Your task to perform on an android device: Search for vegetarian restaurants on Maps Image 0: 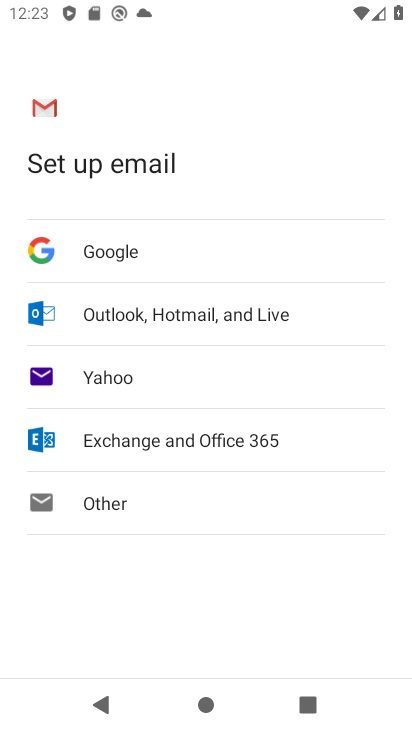
Step 0: press home button
Your task to perform on an android device: Search for vegetarian restaurants on Maps Image 1: 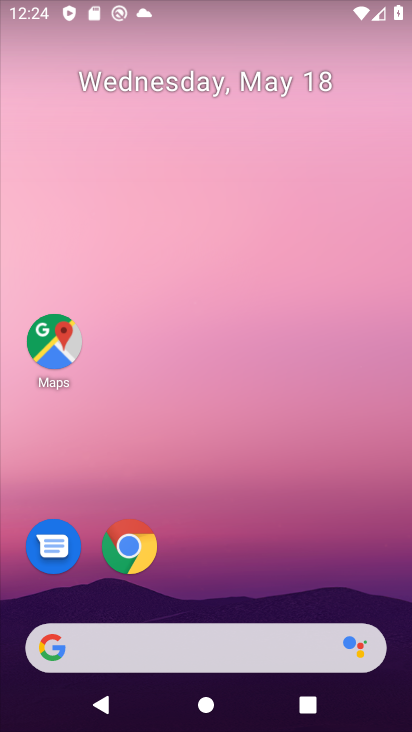
Step 1: drag from (245, 553) to (236, 182)
Your task to perform on an android device: Search for vegetarian restaurants on Maps Image 2: 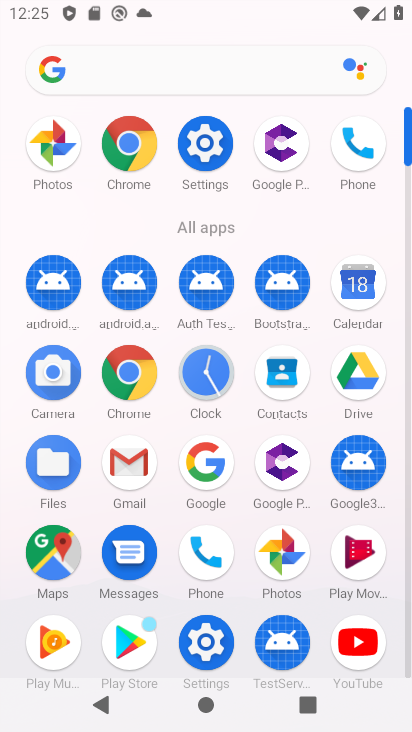
Step 2: click (45, 555)
Your task to perform on an android device: Search for vegetarian restaurants on Maps Image 3: 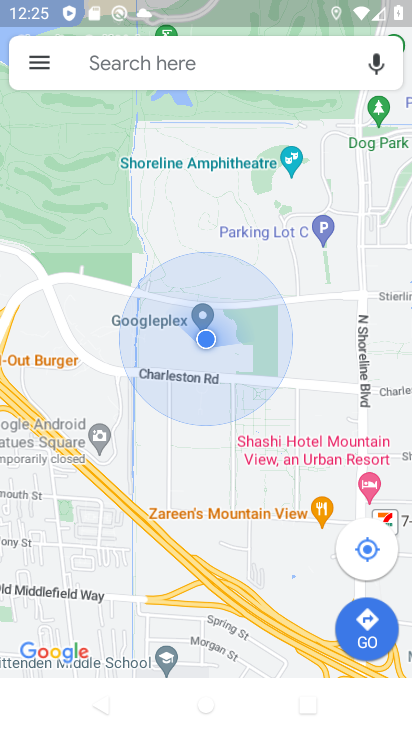
Step 3: click (179, 66)
Your task to perform on an android device: Search for vegetarian restaurants on Maps Image 4: 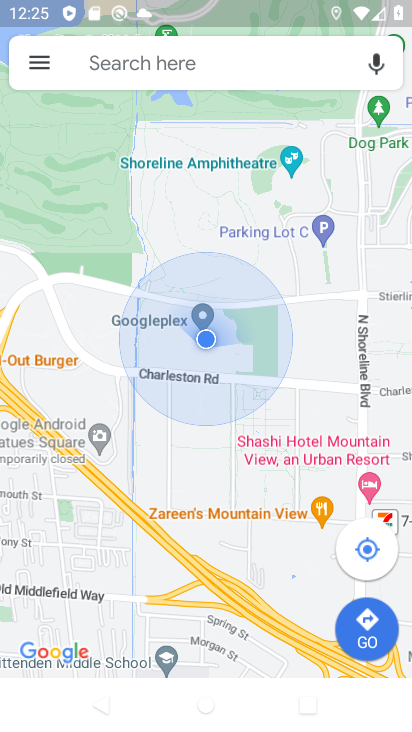
Step 4: click (179, 66)
Your task to perform on an android device: Search for vegetarian restaurants on Maps Image 5: 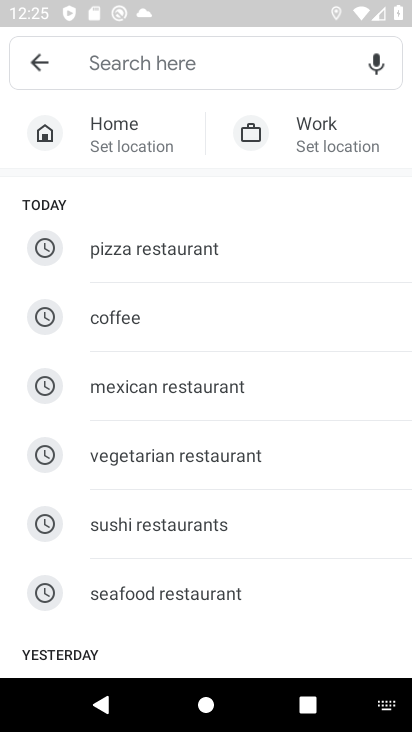
Step 5: type " vegetarian restaurants"
Your task to perform on an android device: Search for vegetarian restaurants on Maps Image 6: 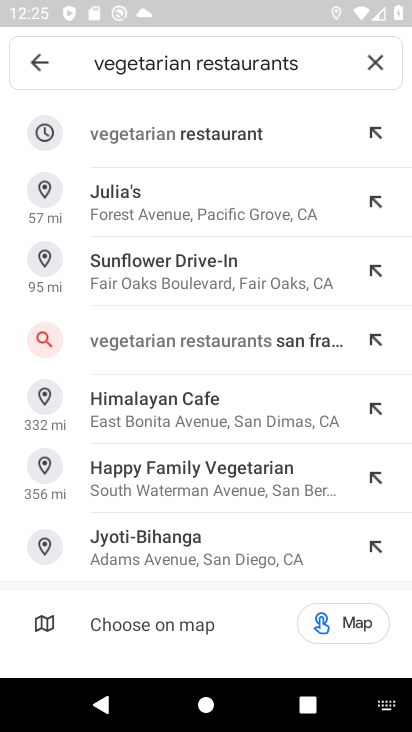
Step 6: click (227, 123)
Your task to perform on an android device: Search for vegetarian restaurants on Maps Image 7: 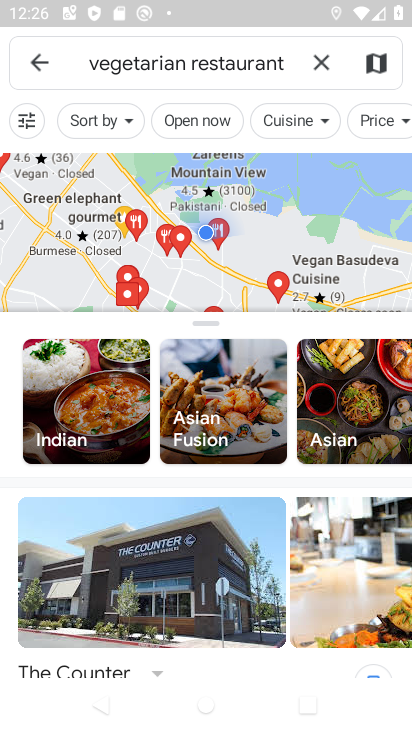
Step 7: task complete